Your task to perform on an android device: Add macbook pro to the cart on walmart Image 0: 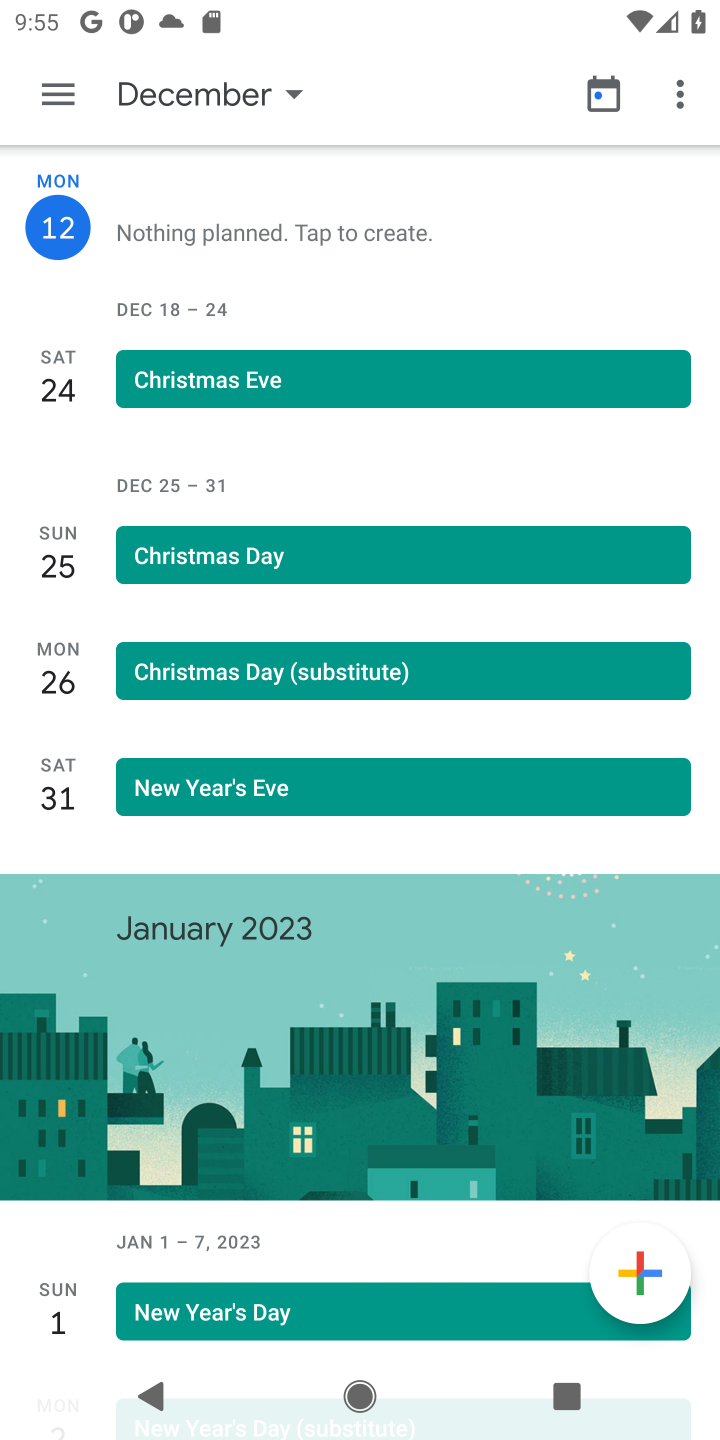
Step 0: press home button
Your task to perform on an android device: Add macbook pro to the cart on walmart Image 1: 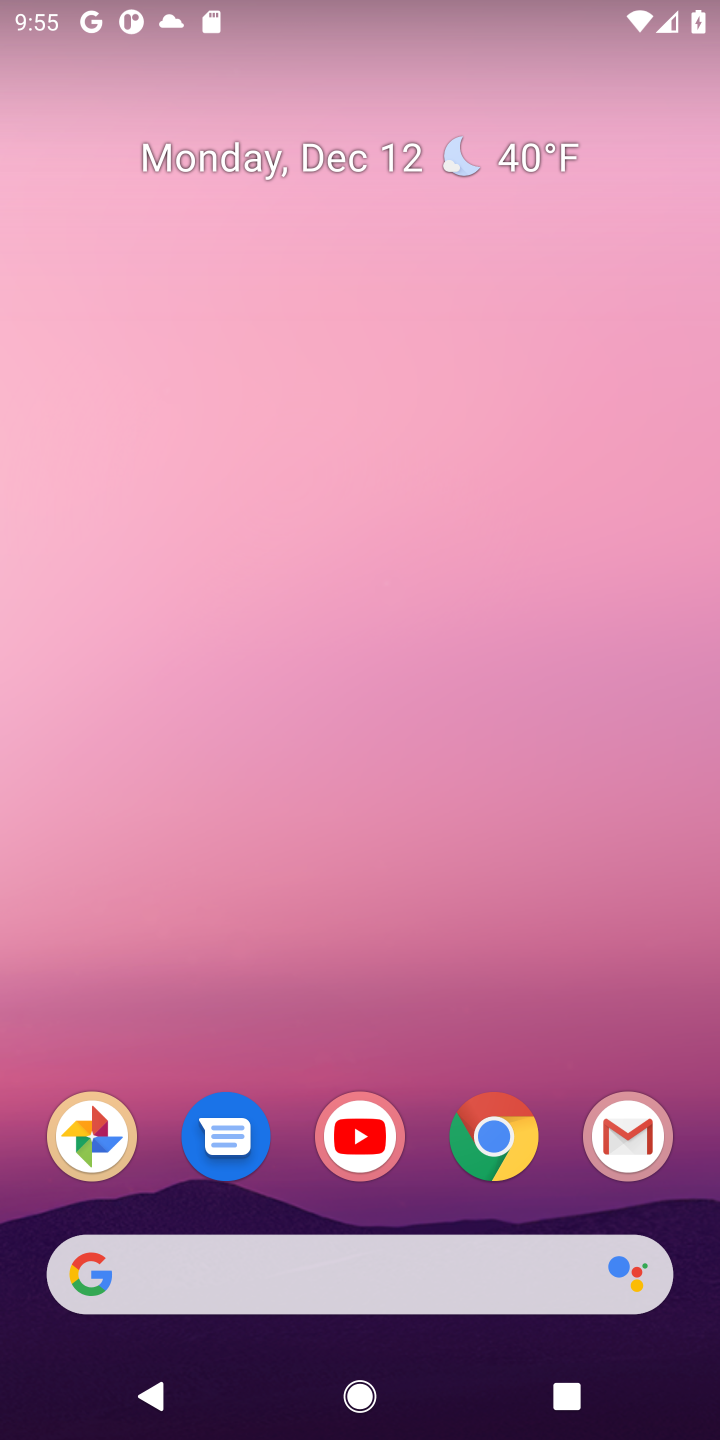
Step 1: click (504, 1160)
Your task to perform on an android device: Add macbook pro to the cart on walmart Image 2: 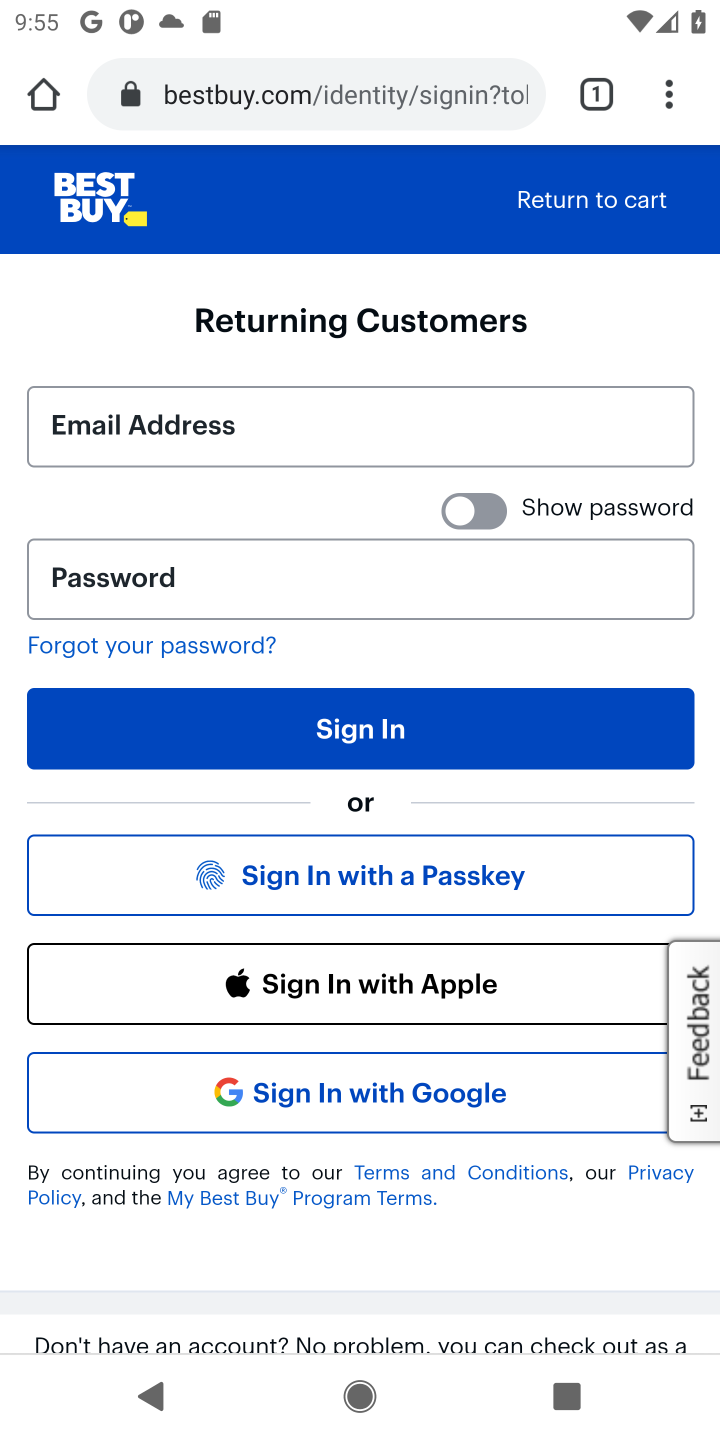
Step 2: click (242, 98)
Your task to perform on an android device: Add macbook pro to the cart on walmart Image 3: 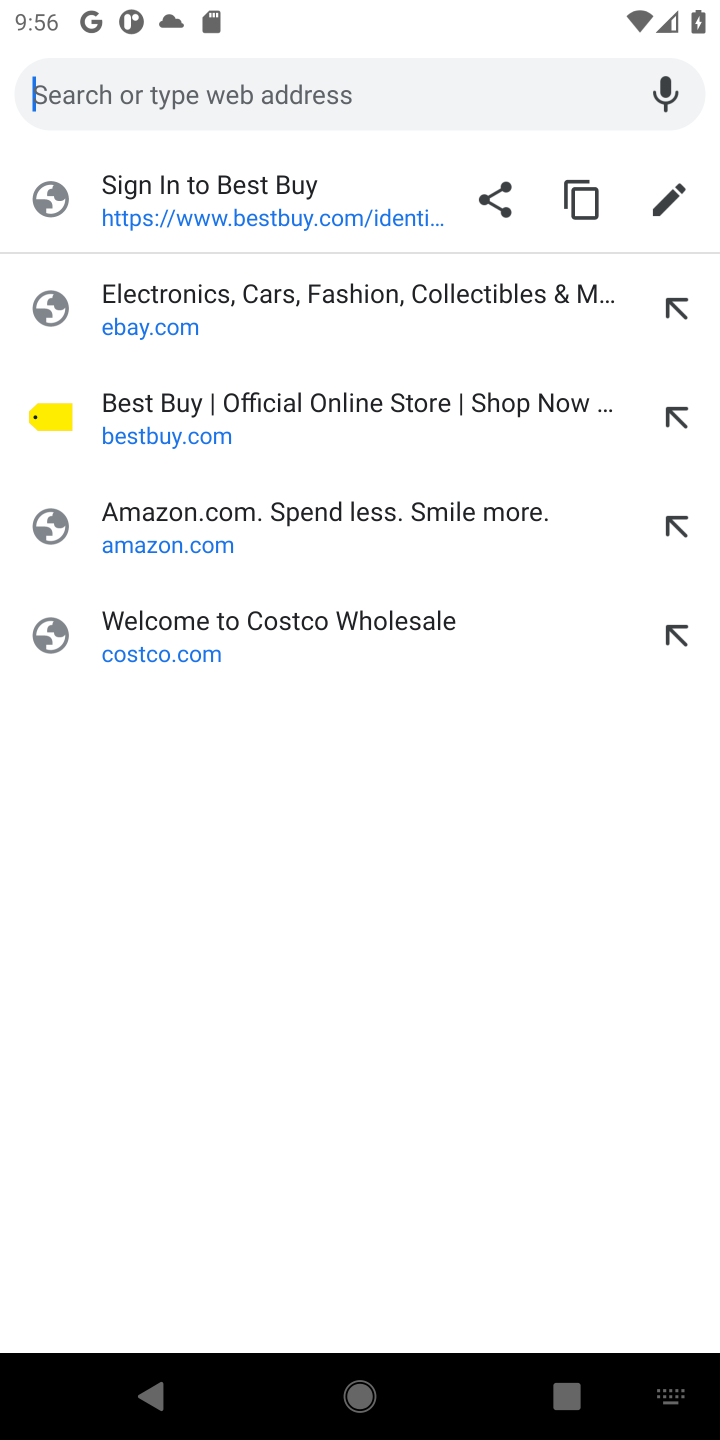
Step 3: type "walmart.com"
Your task to perform on an android device: Add macbook pro to the cart on walmart Image 4: 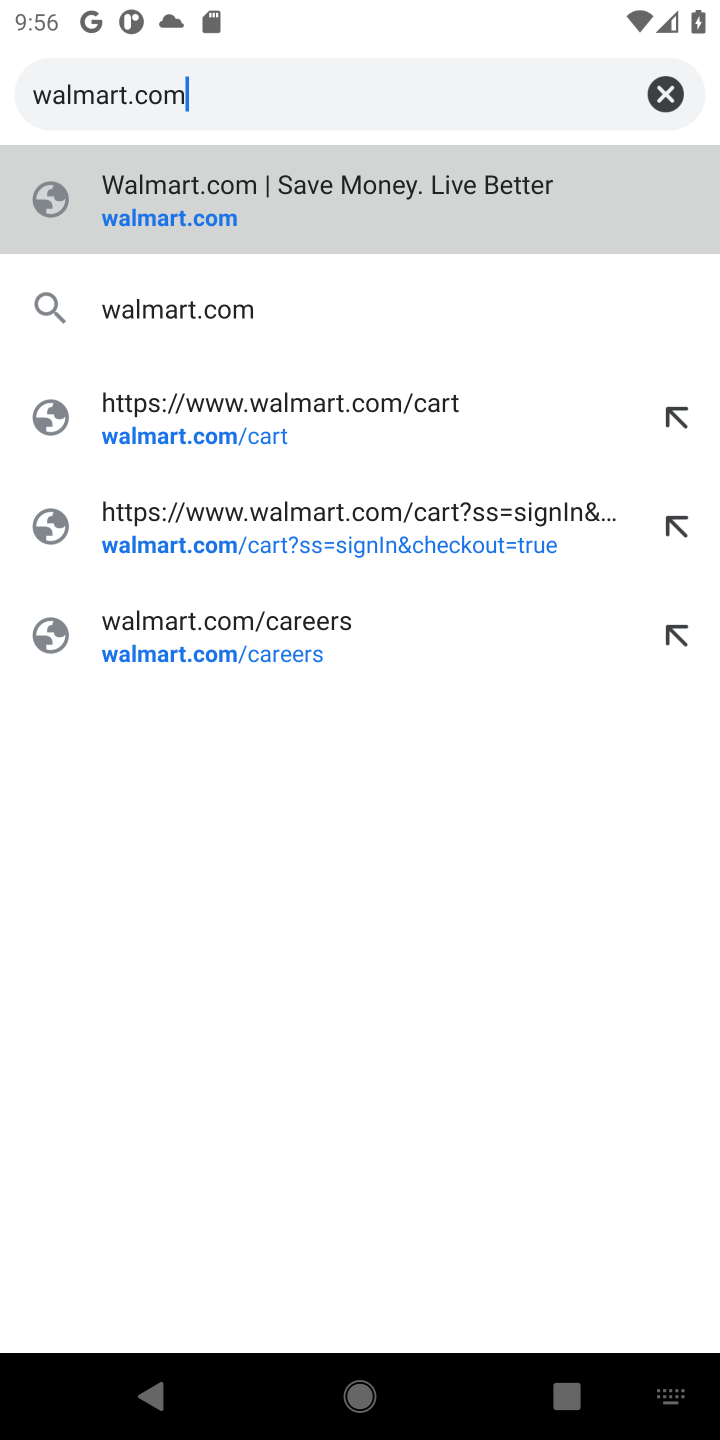
Step 4: click (151, 223)
Your task to perform on an android device: Add macbook pro to the cart on walmart Image 5: 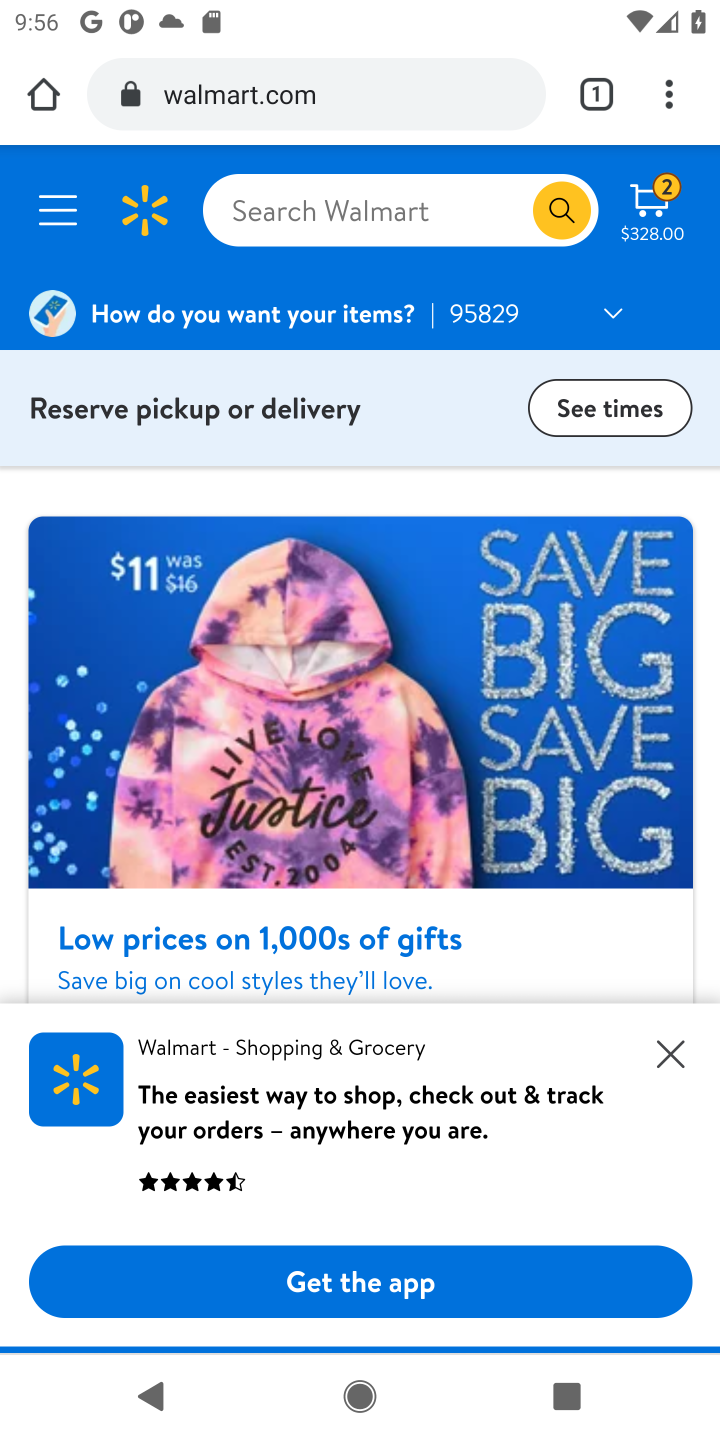
Step 5: click (324, 202)
Your task to perform on an android device: Add macbook pro to the cart on walmart Image 6: 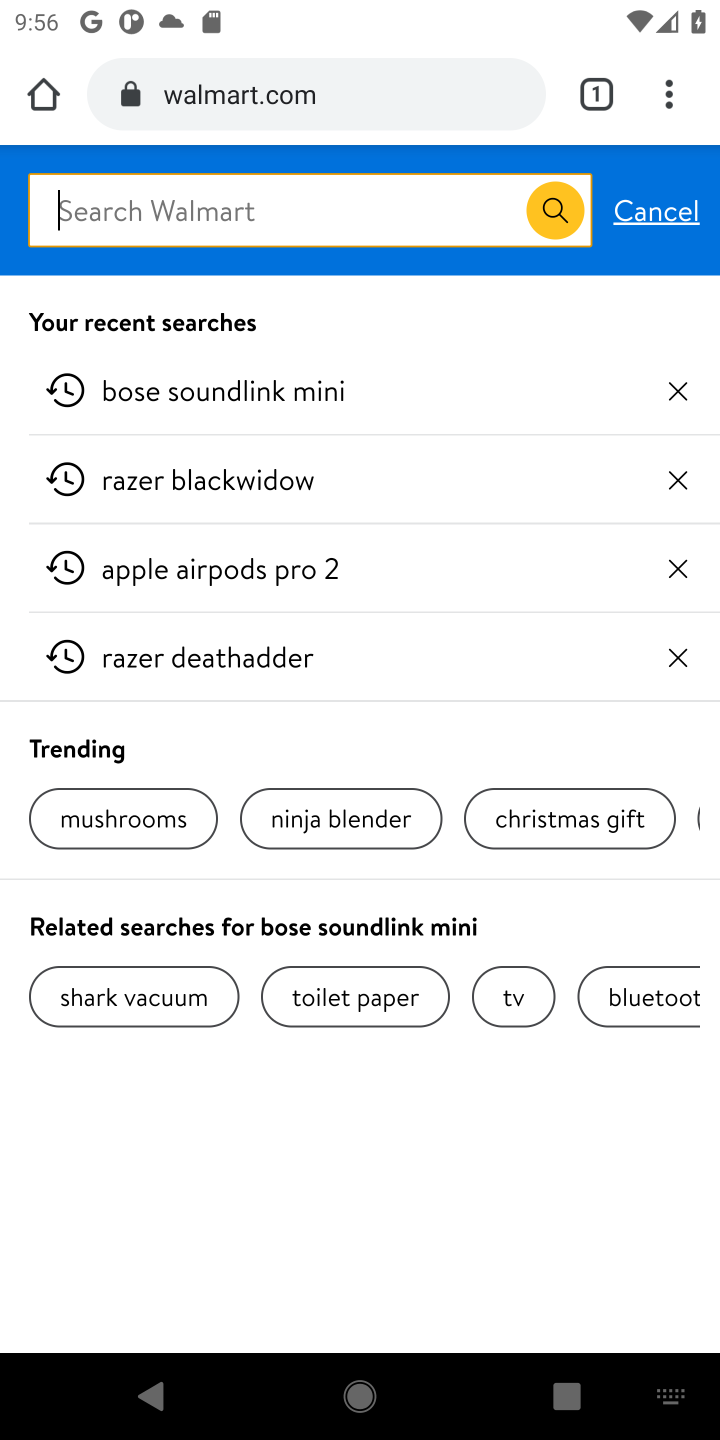
Step 6: type "macbook pro "
Your task to perform on an android device: Add macbook pro to the cart on walmart Image 7: 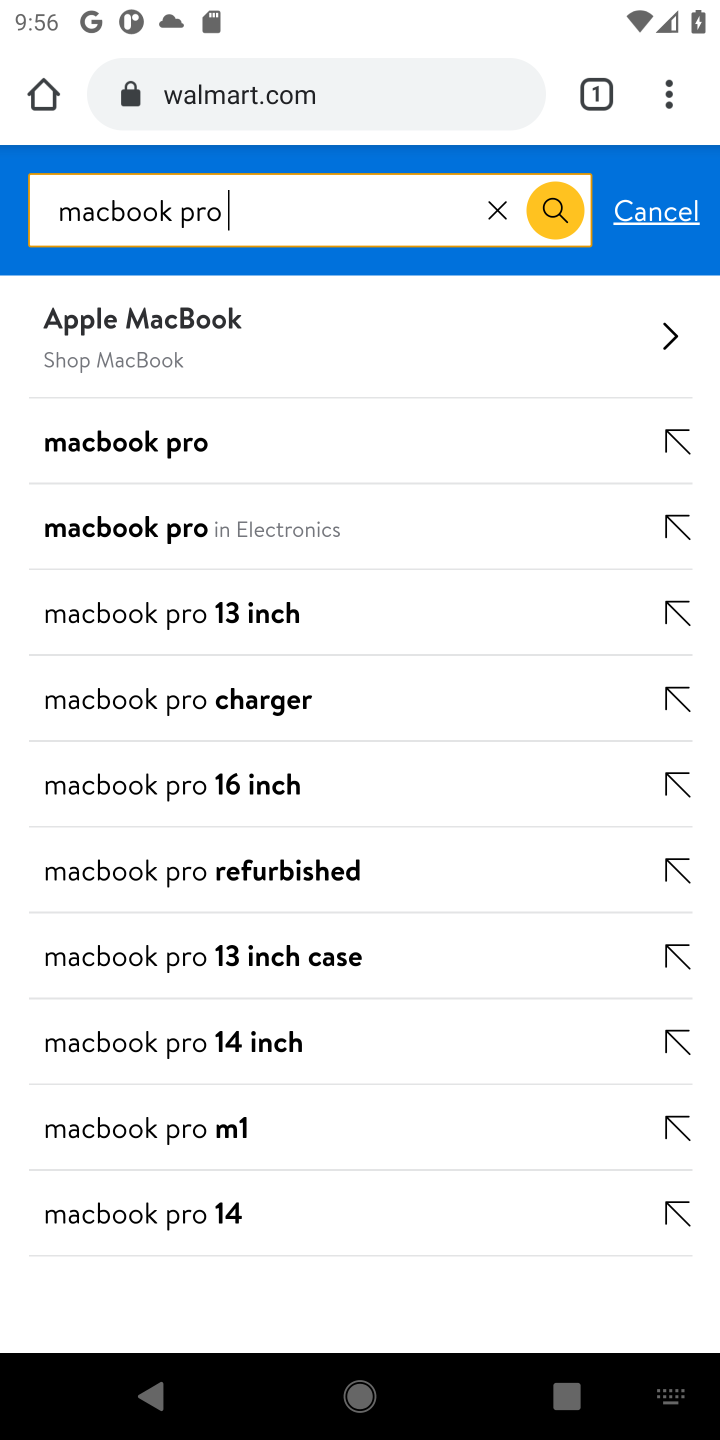
Step 7: click (123, 453)
Your task to perform on an android device: Add macbook pro to the cart on walmart Image 8: 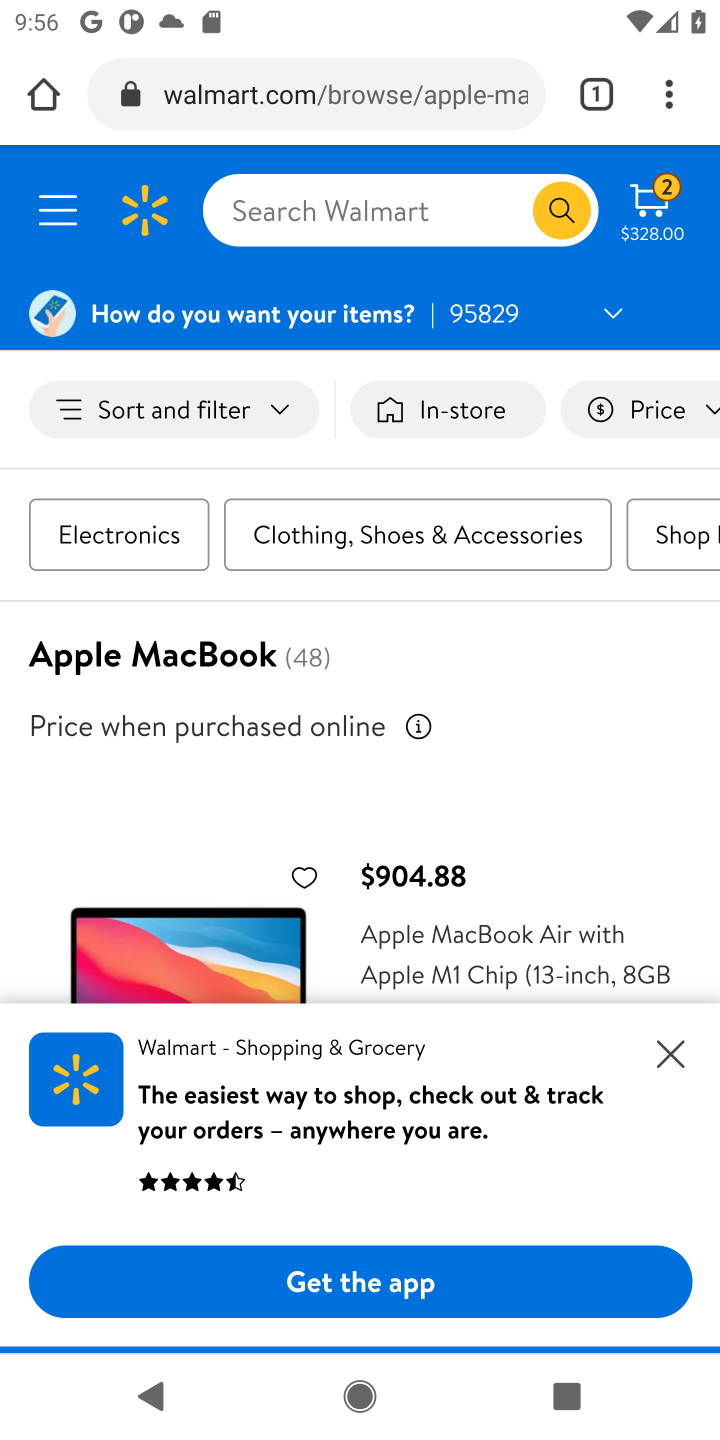
Step 8: task complete